Your task to perform on an android device: Open Youtube and go to the subscriptions tab Image 0: 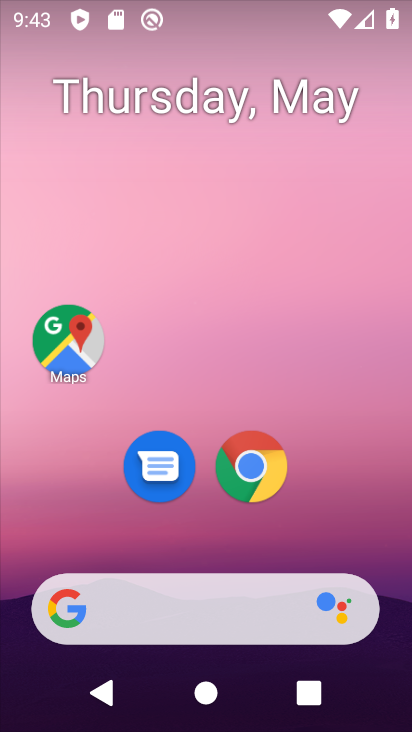
Step 0: drag from (337, 539) to (301, 192)
Your task to perform on an android device: Open Youtube and go to the subscriptions tab Image 1: 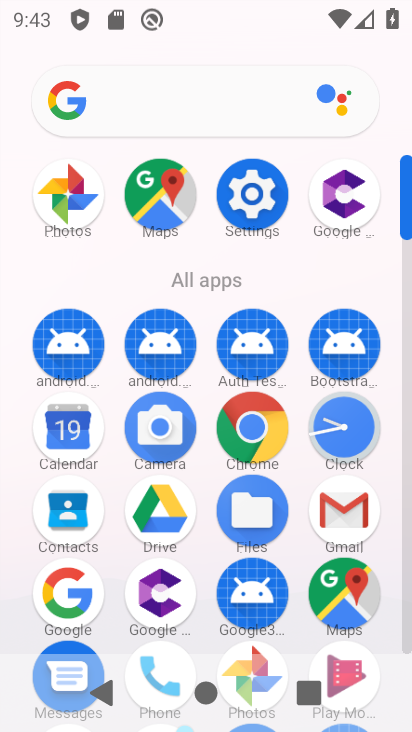
Step 1: drag from (330, 611) to (333, 195)
Your task to perform on an android device: Open Youtube and go to the subscriptions tab Image 2: 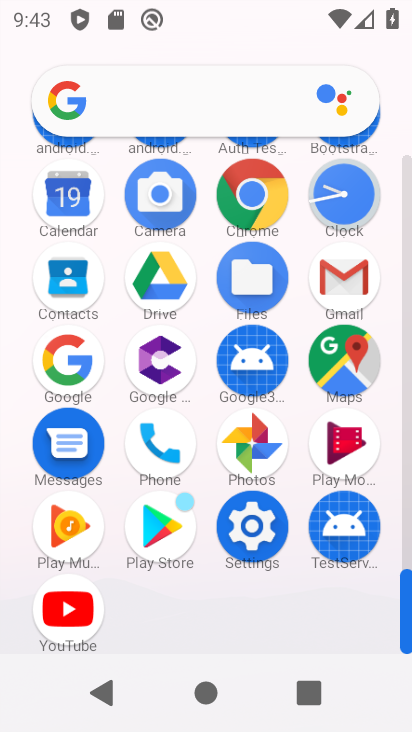
Step 2: click (81, 604)
Your task to perform on an android device: Open Youtube and go to the subscriptions tab Image 3: 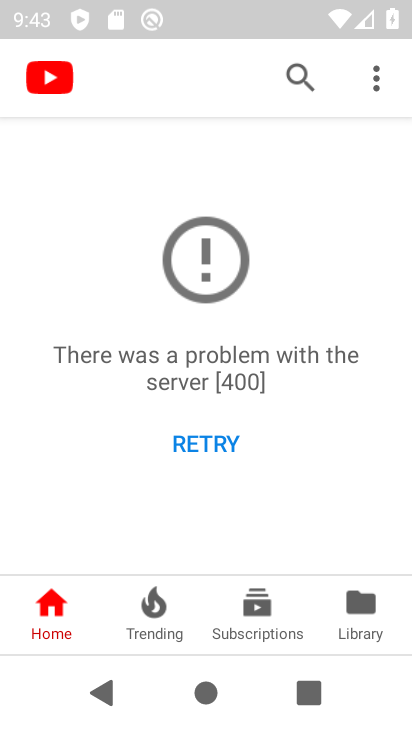
Step 3: click (269, 602)
Your task to perform on an android device: Open Youtube and go to the subscriptions tab Image 4: 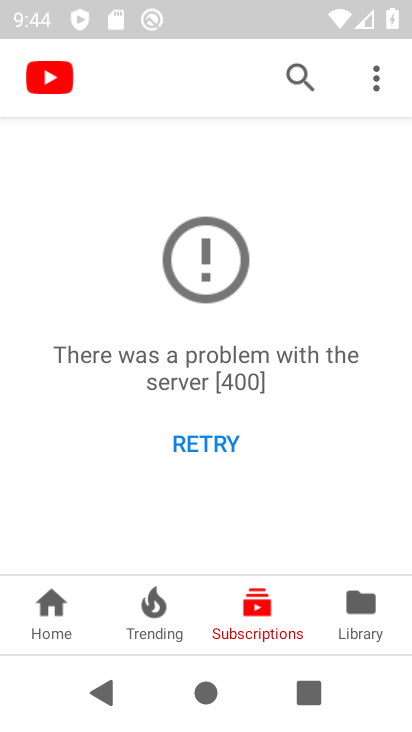
Step 4: task complete